Your task to perform on an android device: What's on my calendar today? Image 0: 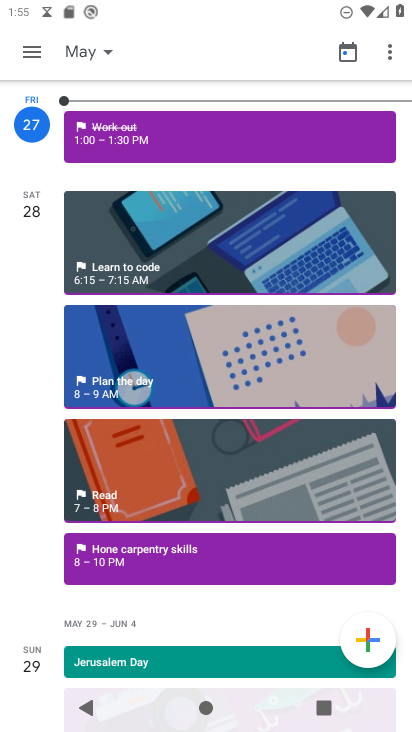
Step 0: press home button
Your task to perform on an android device: What's on my calendar today? Image 1: 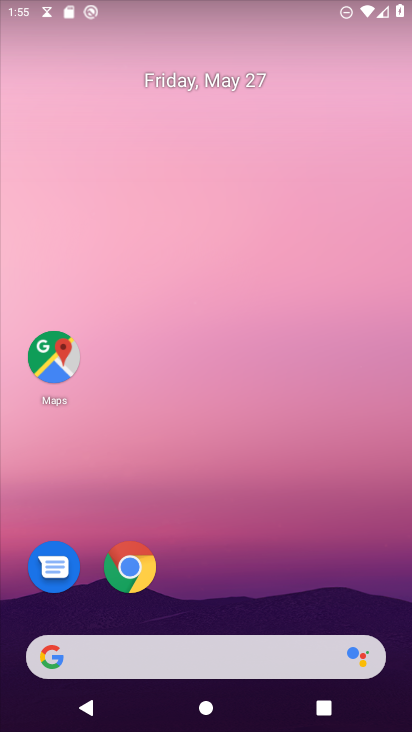
Step 1: drag from (222, 608) to (185, 74)
Your task to perform on an android device: What's on my calendar today? Image 2: 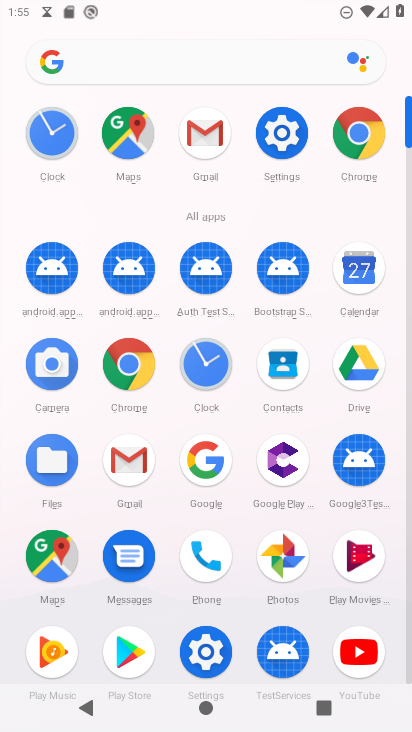
Step 2: click (360, 269)
Your task to perform on an android device: What's on my calendar today? Image 3: 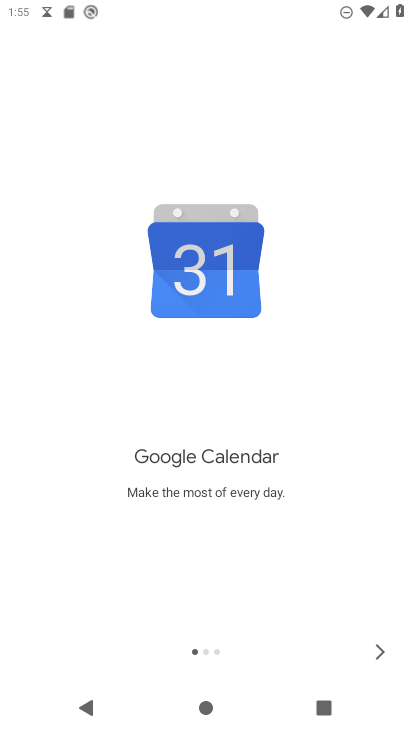
Step 3: click (383, 656)
Your task to perform on an android device: What's on my calendar today? Image 4: 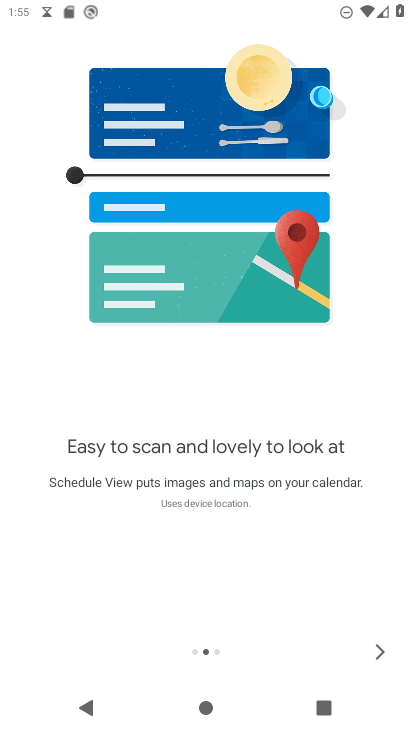
Step 4: click (383, 656)
Your task to perform on an android device: What's on my calendar today? Image 5: 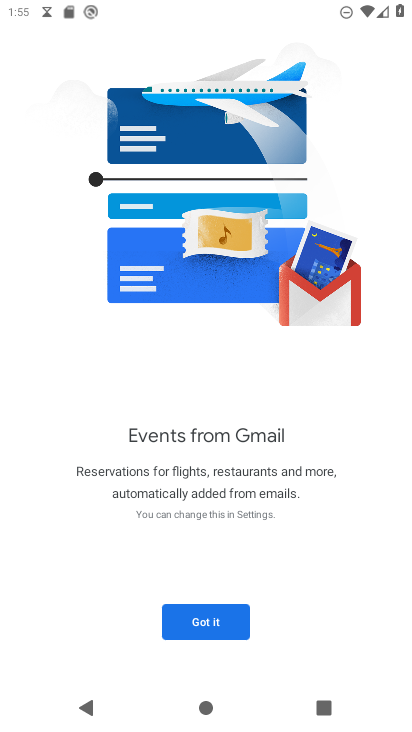
Step 5: click (383, 656)
Your task to perform on an android device: What's on my calendar today? Image 6: 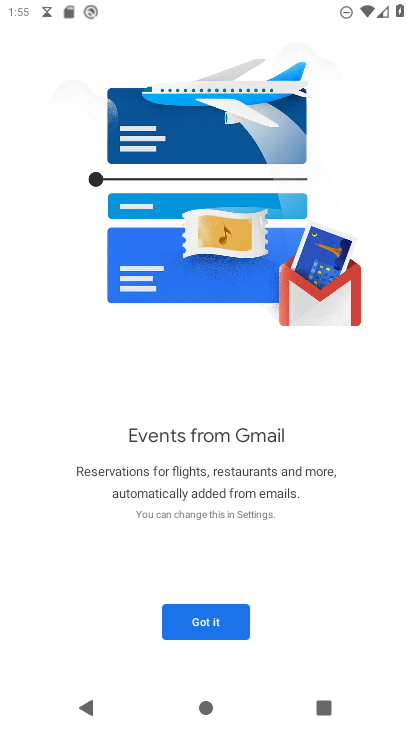
Step 6: click (187, 625)
Your task to perform on an android device: What's on my calendar today? Image 7: 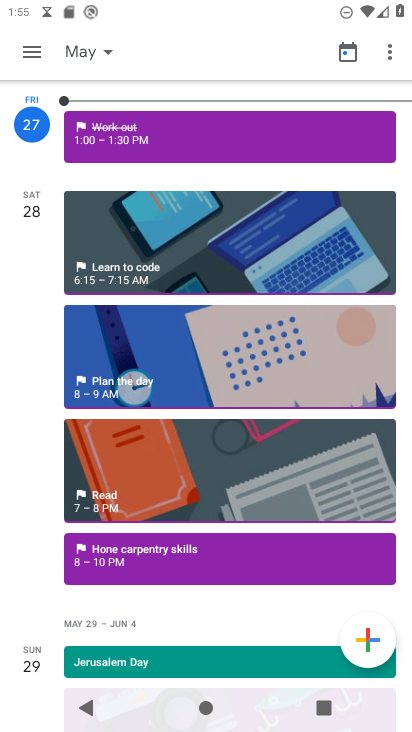
Step 7: task complete